Your task to perform on an android device: Clear the shopping cart on newegg. Add "alienware aurora" to the cart on newegg Image 0: 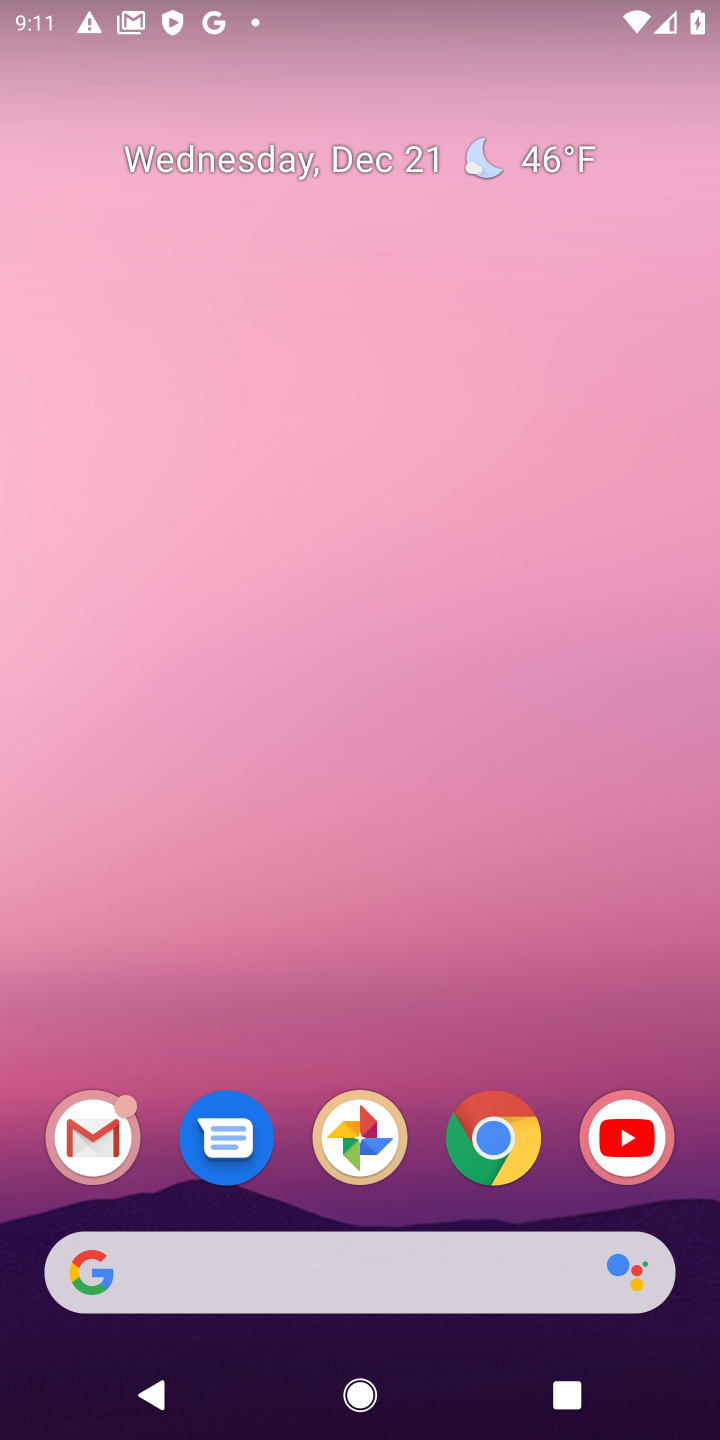
Step 0: click (502, 1146)
Your task to perform on an android device: Clear the shopping cart on newegg. Add "alienware aurora" to the cart on newegg Image 1: 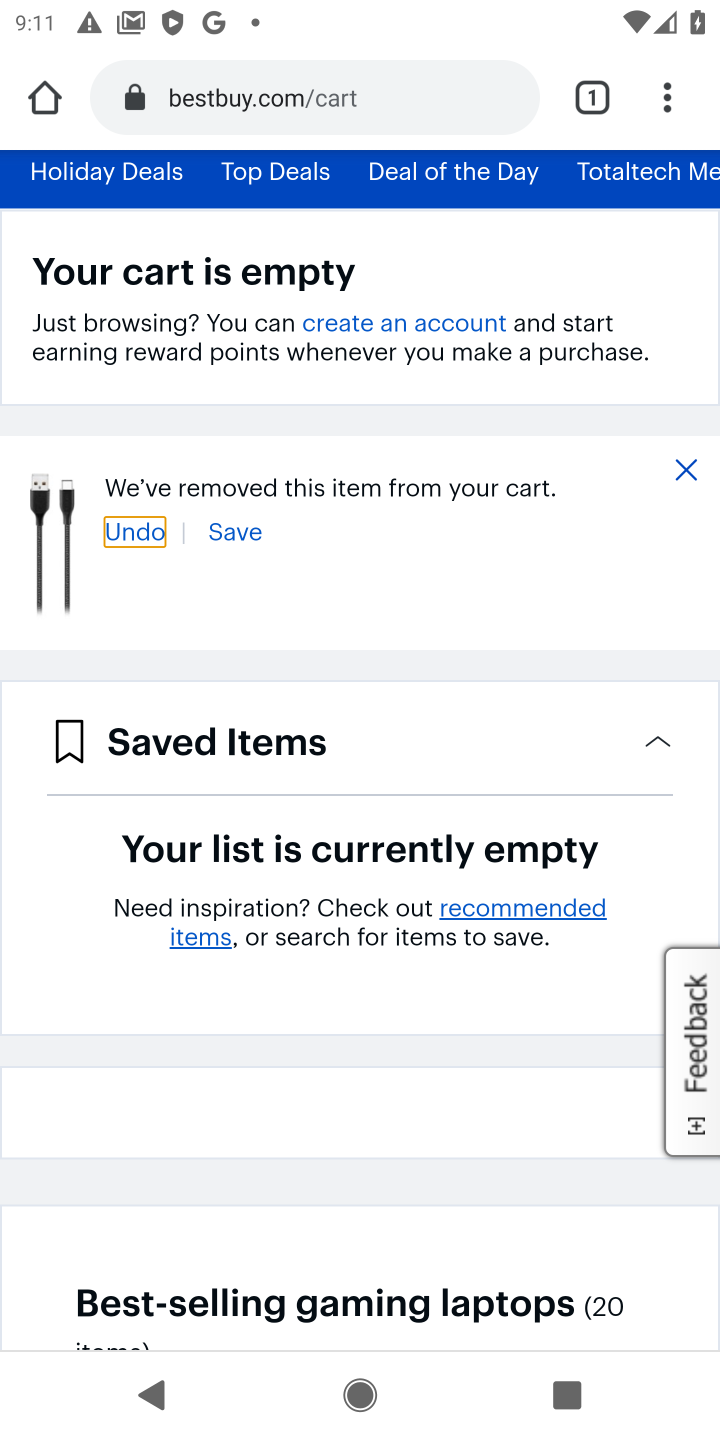
Step 1: click (225, 104)
Your task to perform on an android device: Clear the shopping cart on newegg. Add "alienware aurora" to the cart on newegg Image 2: 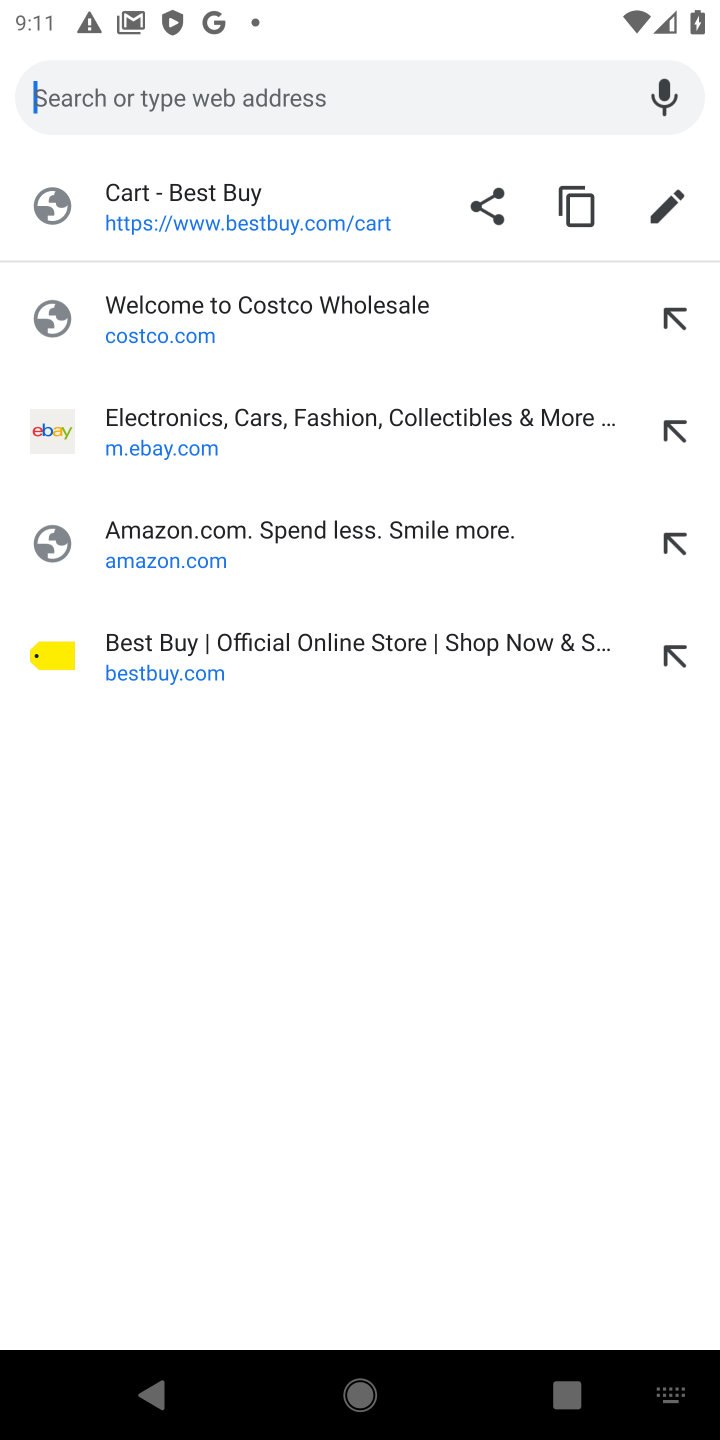
Step 2: type "newegg.com"
Your task to perform on an android device: Clear the shopping cart on newegg. Add "alienware aurora" to the cart on newegg Image 3: 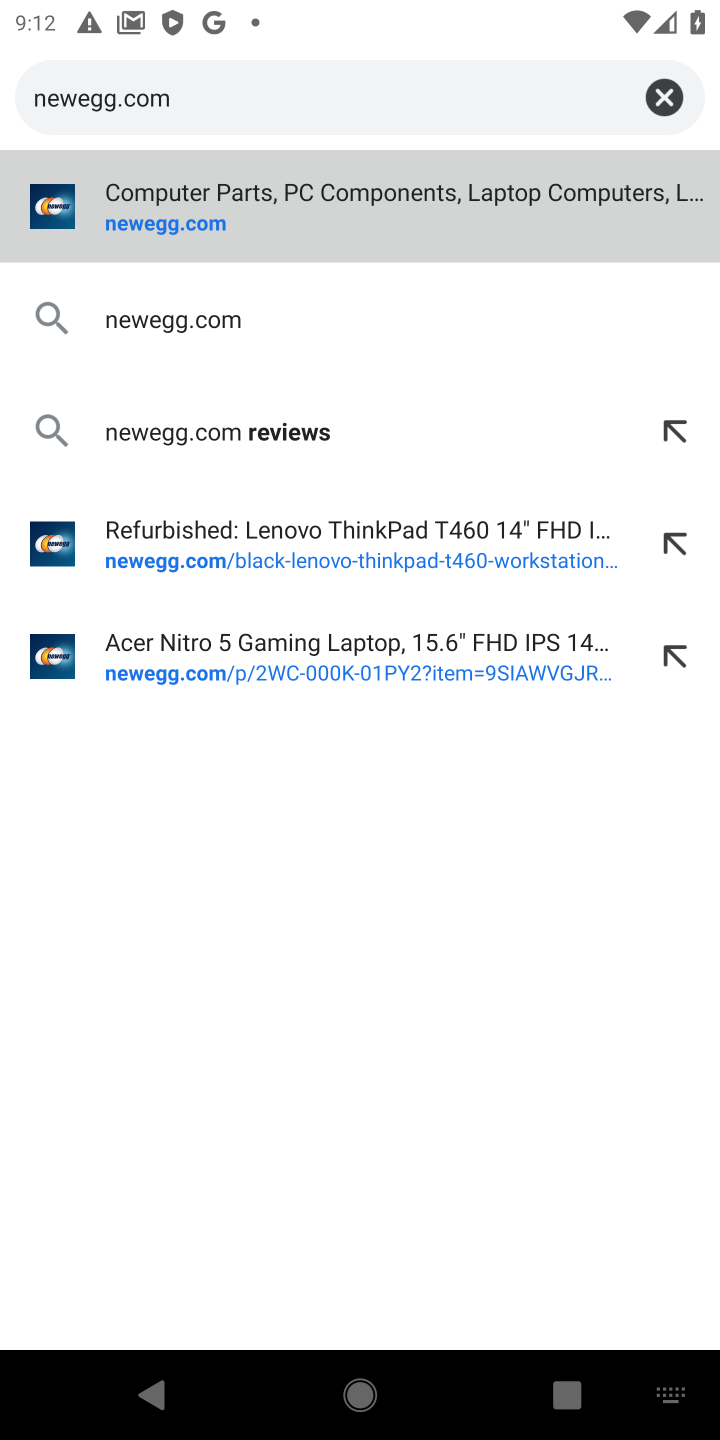
Step 3: click (167, 210)
Your task to perform on an android device: Clear the shopping cart on newegg. Add "alienware aurora" to the cart on newegg Image 4: 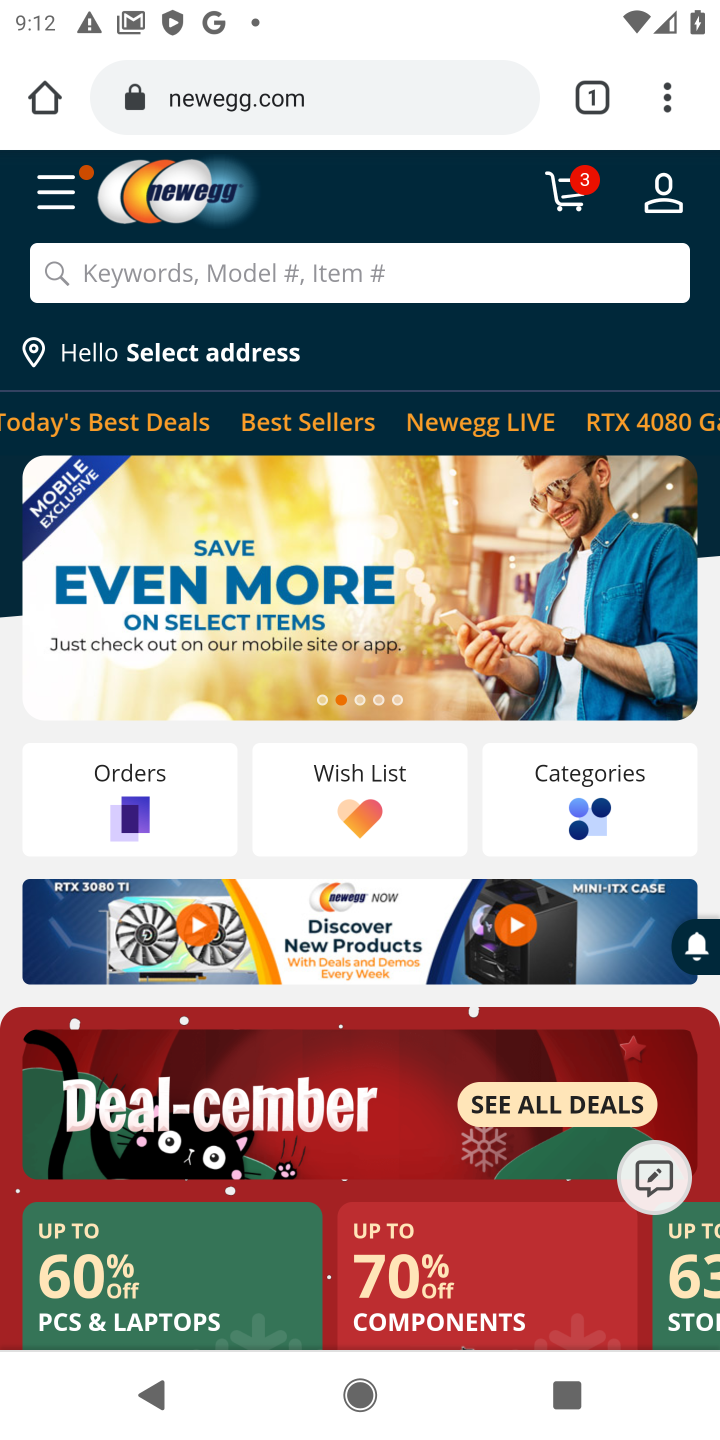
Step 4: click (561, 197)
Your task to perform on an android device: Clear the shopping cart on newegg. Add "alienware aurora" to the cart on newegg Image 5: 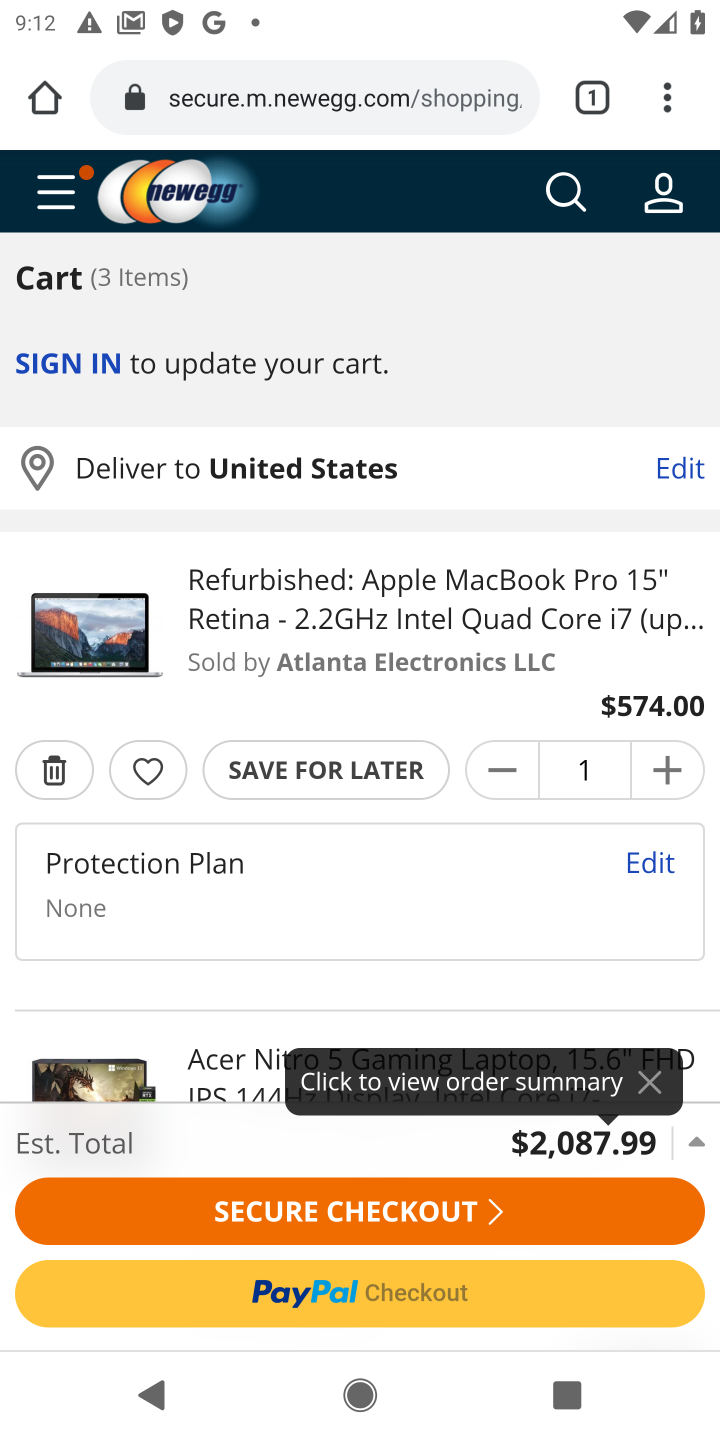
Step 5: click (50, 771)
Your task to perform on an android device: Clear the shopping cart on newegg. Add "alienware aurora" to the cart on newegg Image 6: 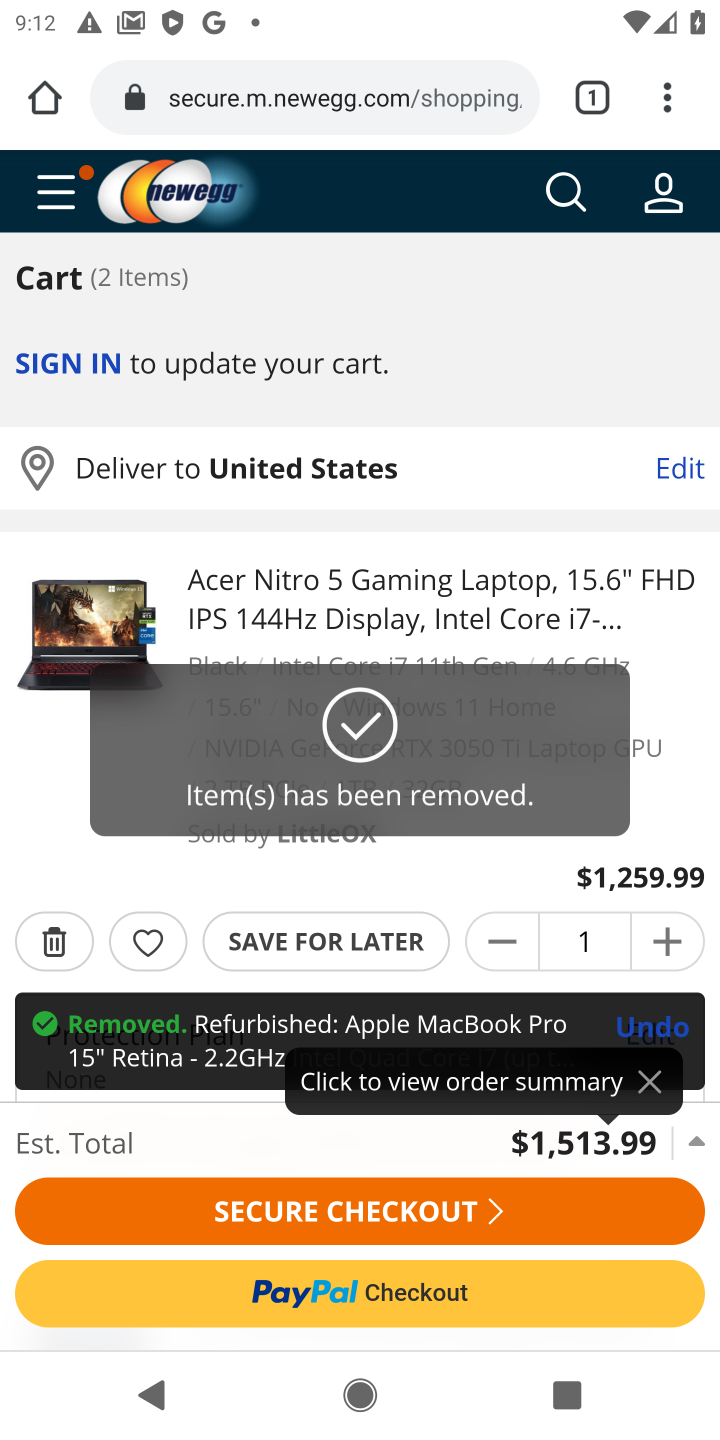
Step 6: click (66, 942)
Your task to perform on an android device: Clear the shopping cart on newegg. Add "alienware aurora" to the cart on newegg Image 7: 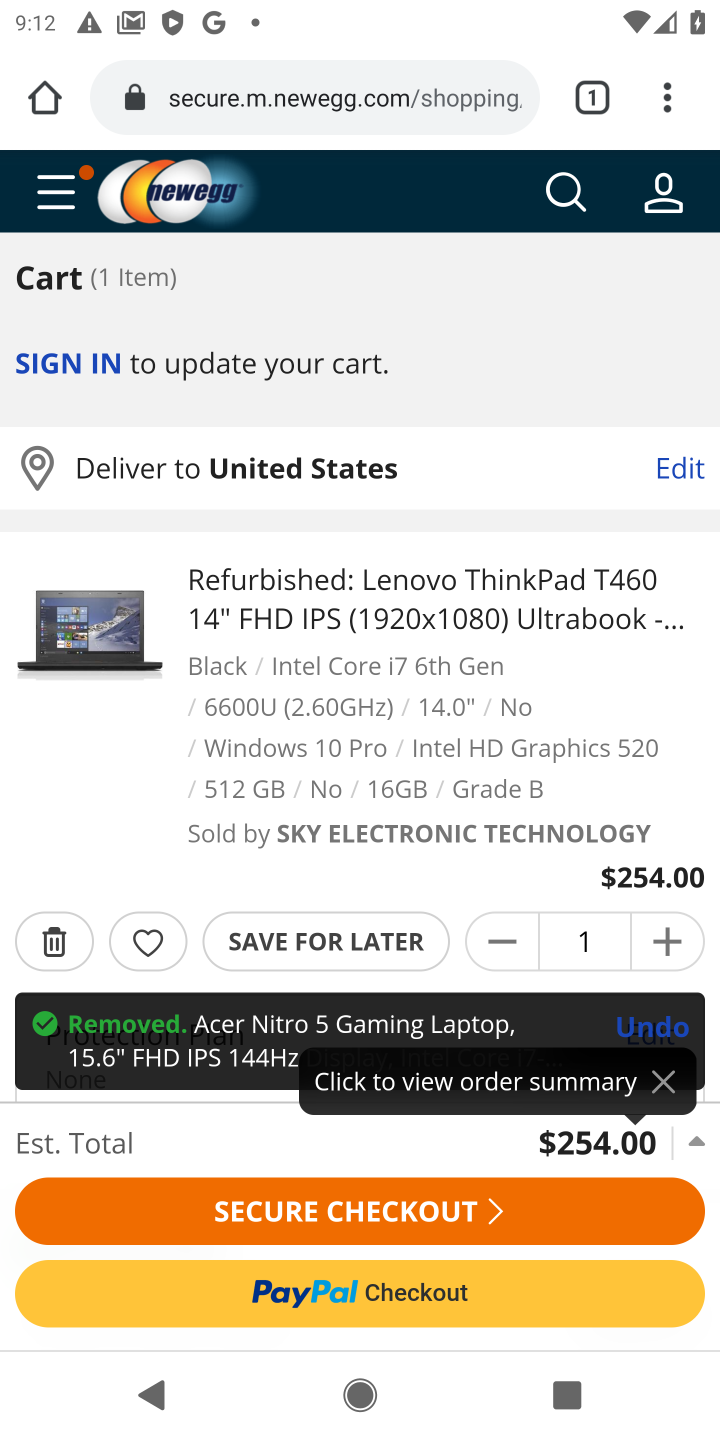
Step 7: click (56, 938)
Your task to perform on an android device: Clear the shopping cart on newegg. Add "alienware aurora" to the cart on newegg Image 8: 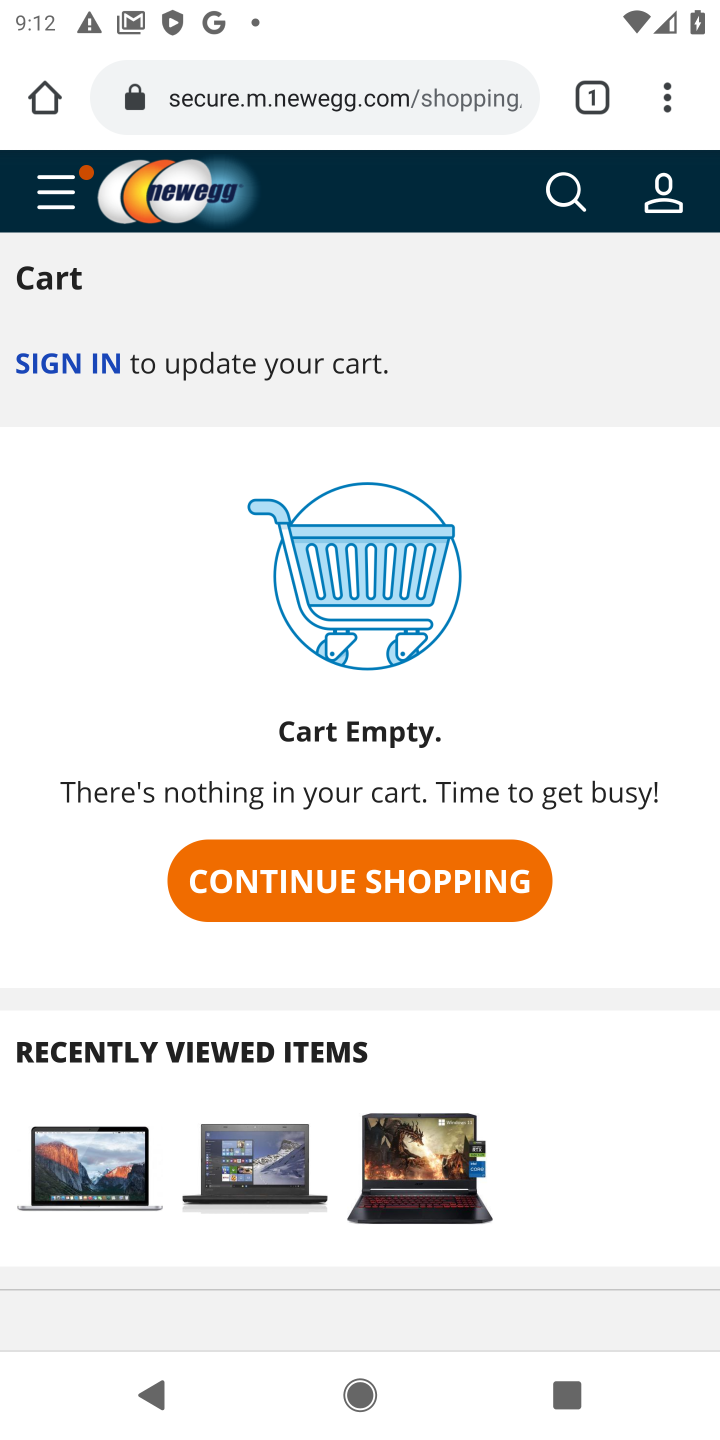
Step 8: click (568, 206)
Your task to perform on an android device: Clear the shopping cart on newegg. Add "alienware aurora" to the cart on newegg Image 9: 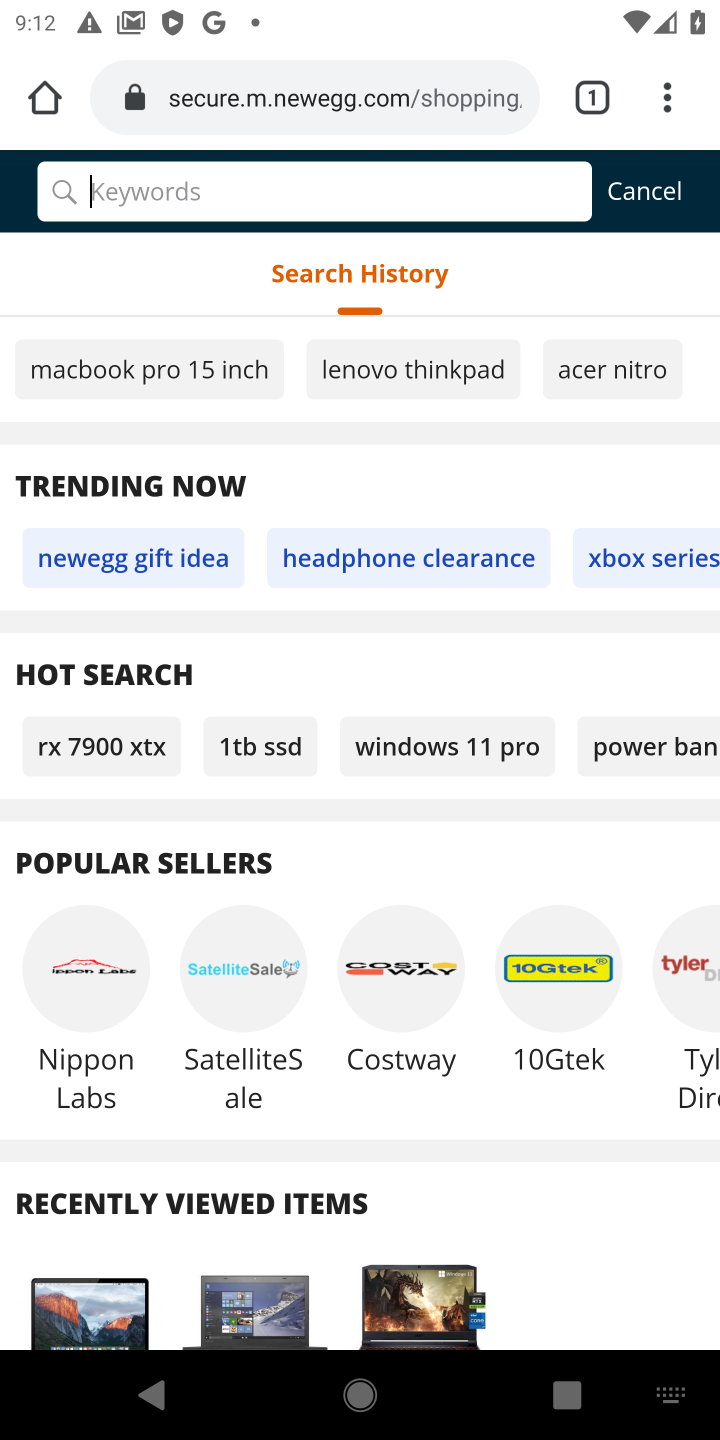
Step 9: type "alienware aurora"
Your task to perform on an android device: Clear the shopping cart on newegg. Add "alienware aurora" to the cart on newegg Image 10: 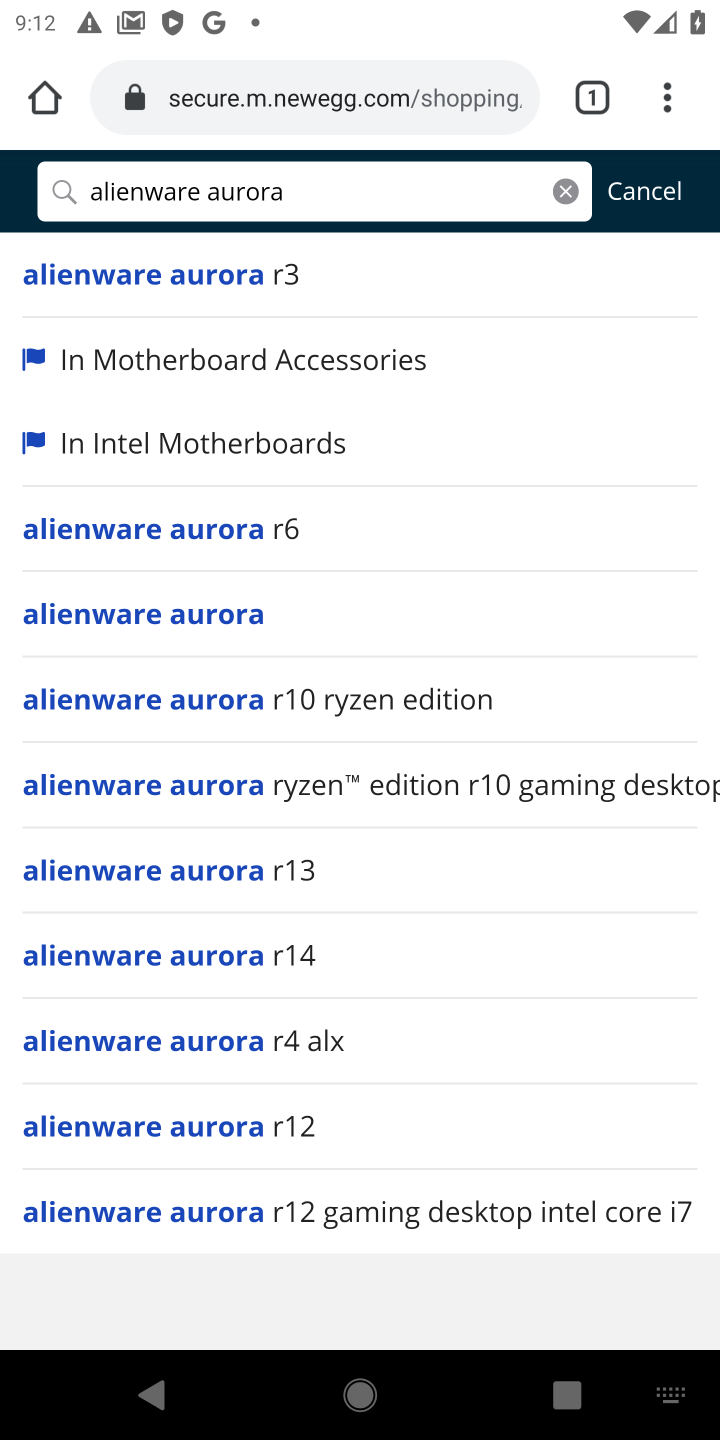
Step 10: click (152, 611)
Your task to perform on an android device: Clear the shopping cart on newegg. Add "alienware aurora" to the cart on newegg Image 11: 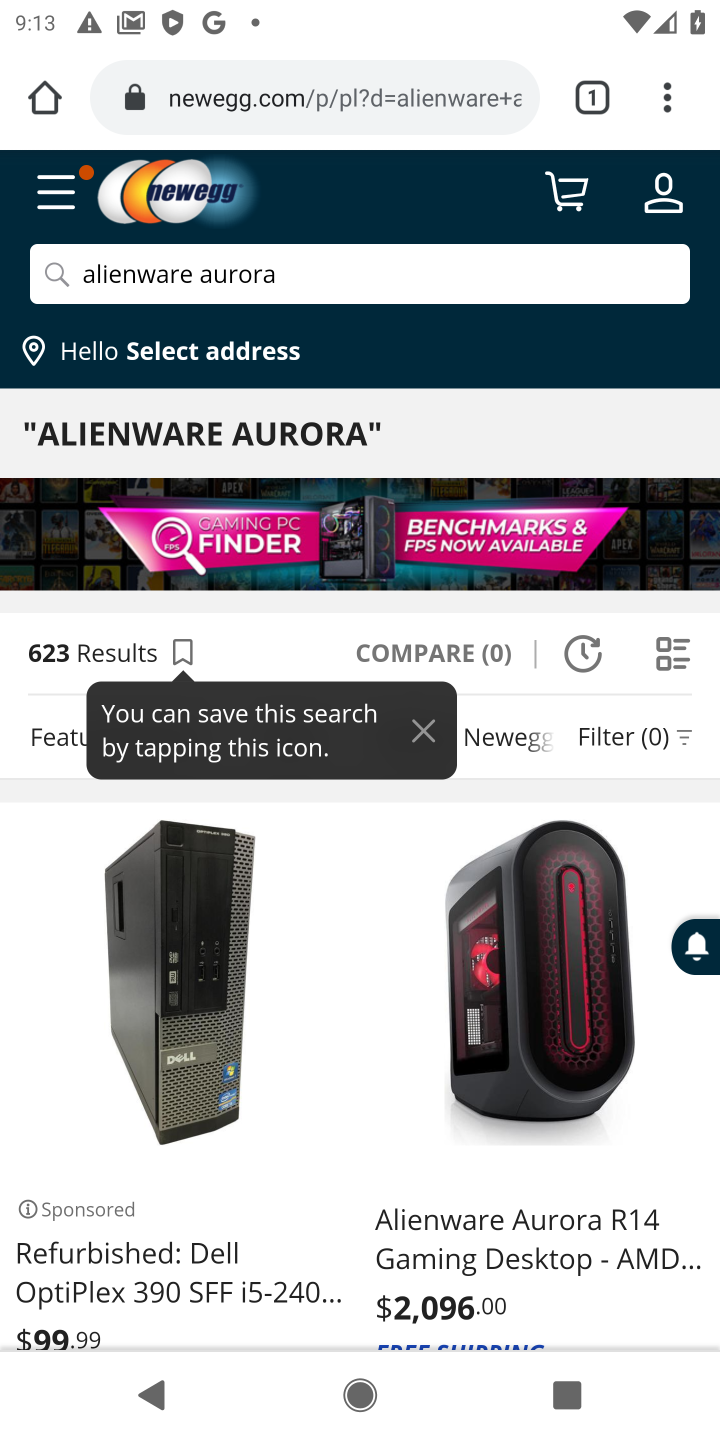
Step 11: drag from (263, 1080) to (258, 739)
Your task to perform on an android device: Clear the shopping cart on newegg. Add "alienware aurora" to the cart on newegg Image 12: 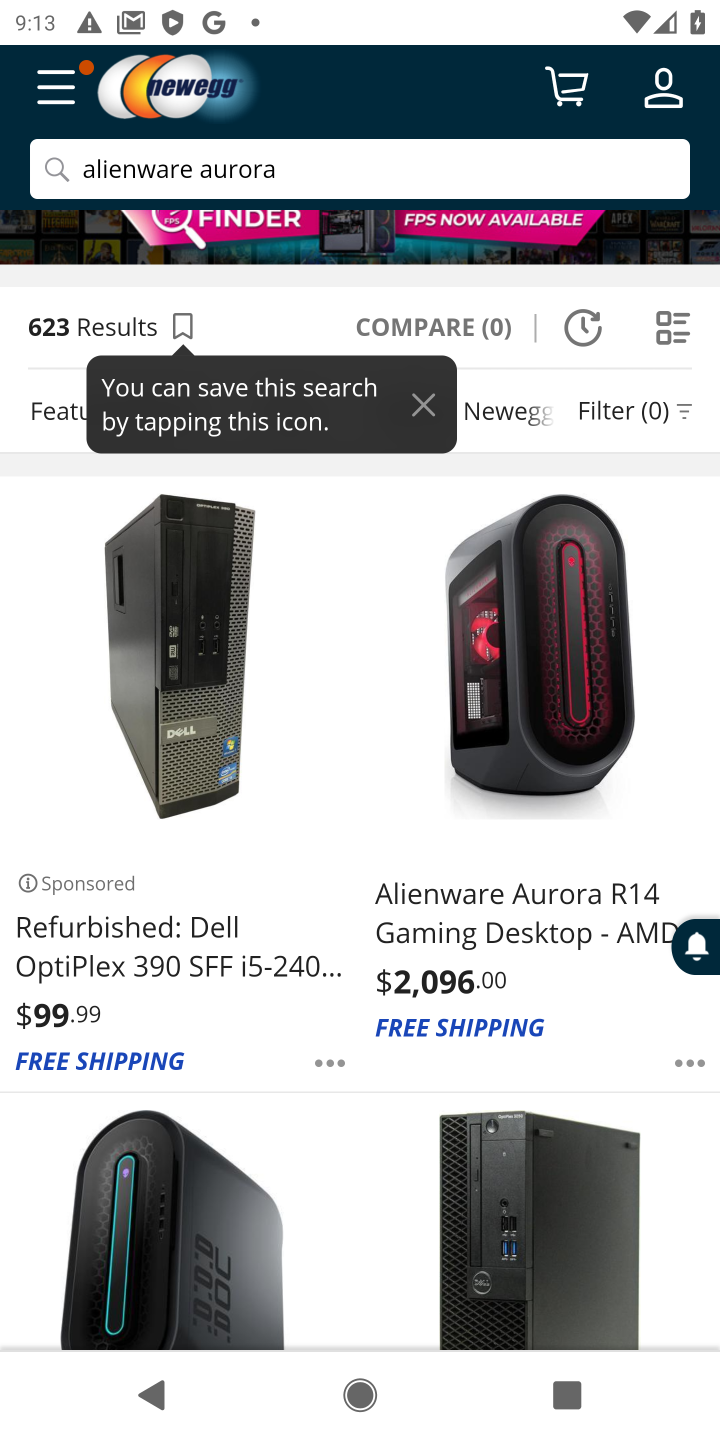
Step 12: click (463, 918)
Your task to perform on an android device: Clear the shopping cart on newegg. Add "alienware aurora" to the cart on newegg Image 13: 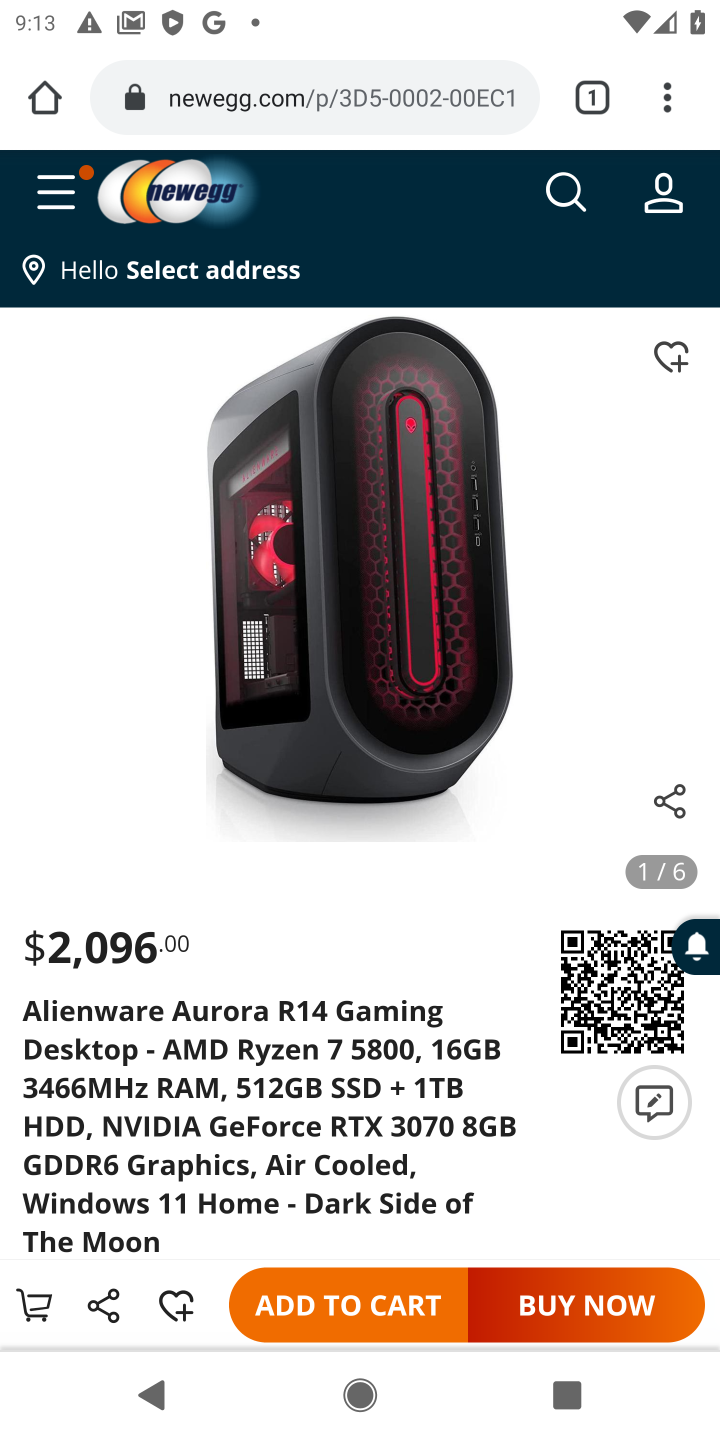
Step 13: click (343, 1309)
Your task to perform on an android device: Clear the shopping cart on newegg. Add "alienware aurora" to the cart on newegg Image 14: 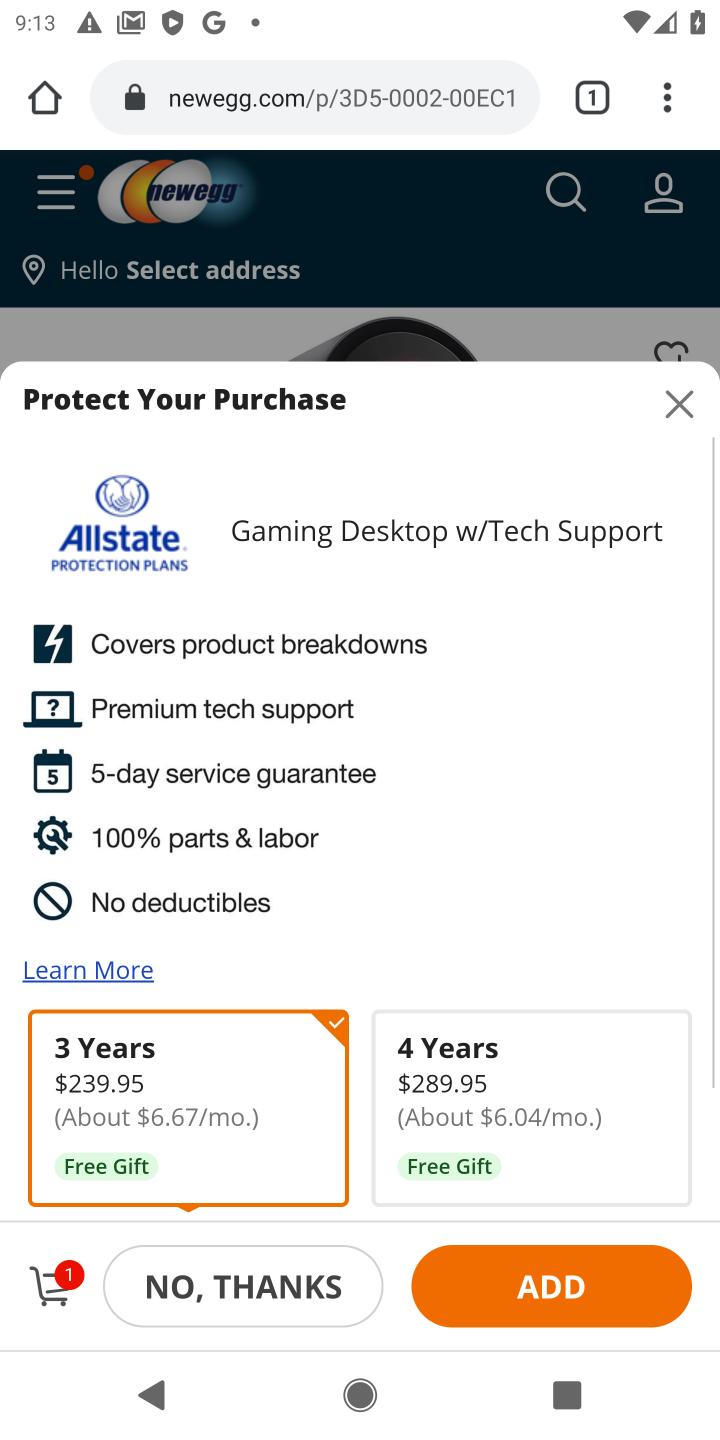
Step 14: task complete